Your task to perform on an android device: Open the phone app and click the voicemail tab. Image 0: 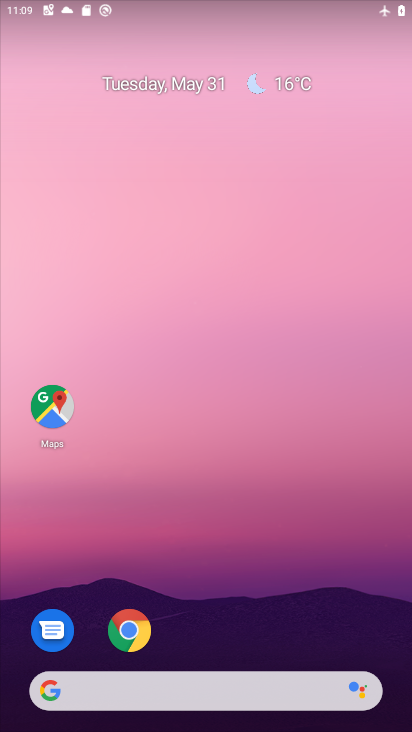
Step 0: drag from (293, 480) to (293, 31)
Your task to perform on an android device: Open the phone app and click the voicemail tab. Image 1: 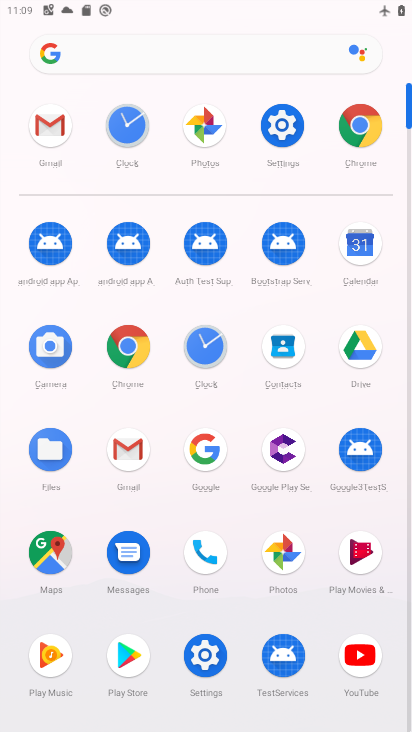
Step 1: click (205, 548)
Your task to perform on an android device: Open the phone app and click the voicemail tab. Image 2: 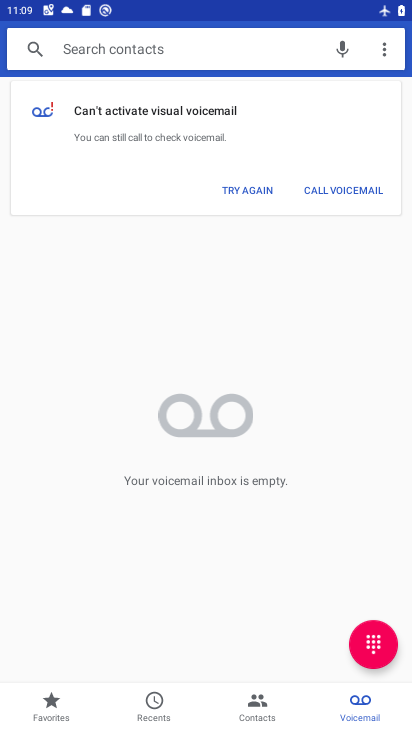
Step 2: click (379, 711)
Your task to perform on an android device: Open the phone app and click the voicemail tab. Image 3: 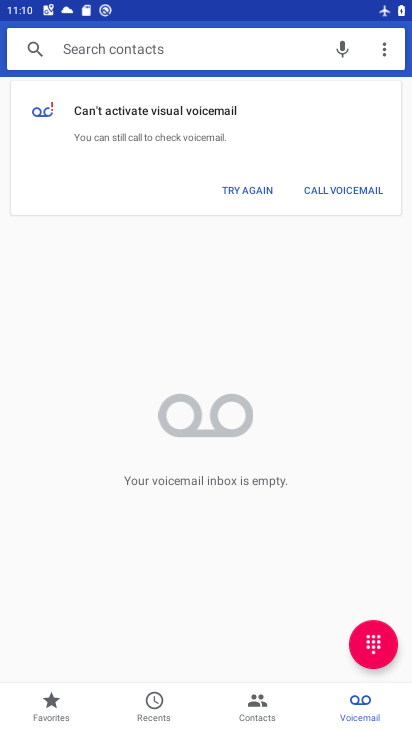
Step 3: task complete